Your task to perform on an android device: show emergency info Image 0: 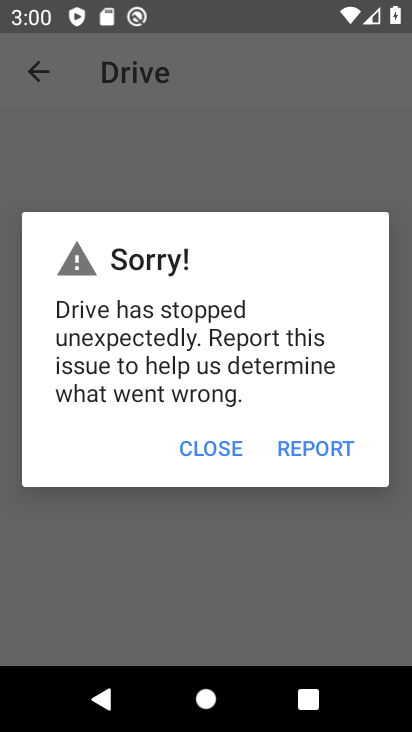
Step 0: press home button
Your task to perform on an android device: show emergency info Image 1: 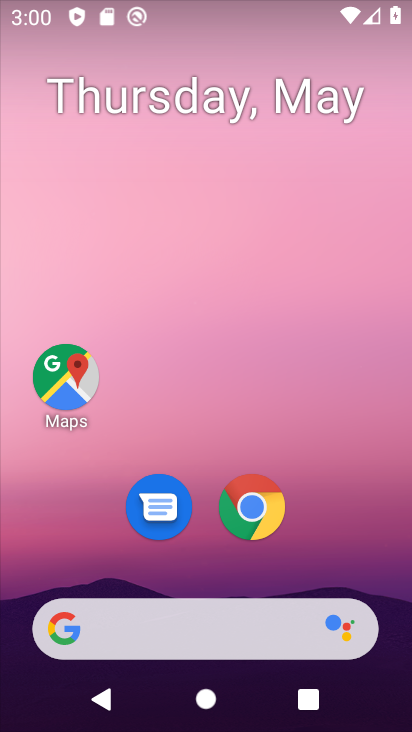
Step 1: drag from (312, 562) to (314, 85)
Your task to perform on an android device: show emergency info Image 2: 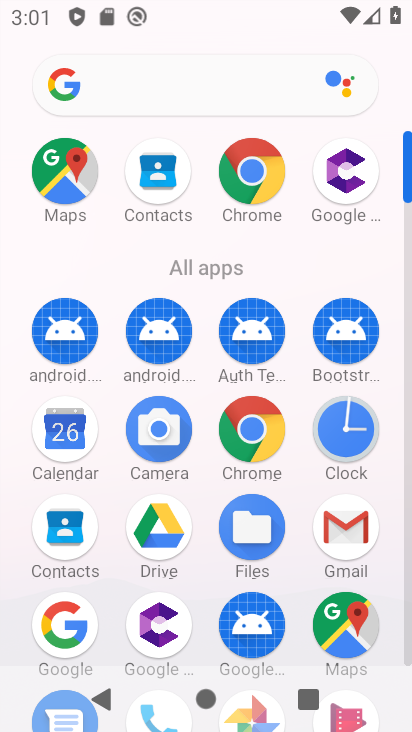
Step 2: drag from (298, 298) to (308, 79)
Your task to perform on an android device: show emergency info Image 3: 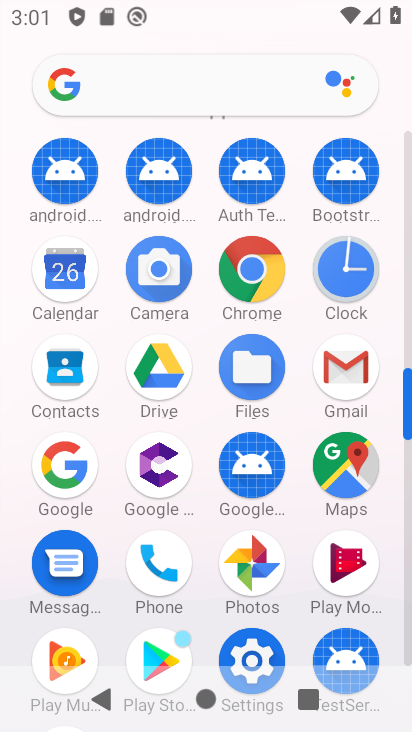
Step 3: click (243, 653)
Your task to perform on an android device: show emergency info Image 4: 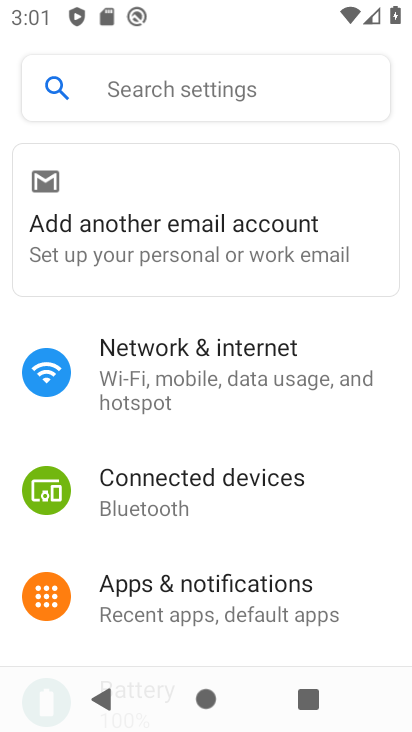
Step 4: drag from (300, 545) to (330, 246)
Your task to perform on an android device: show emergency info Image 5: 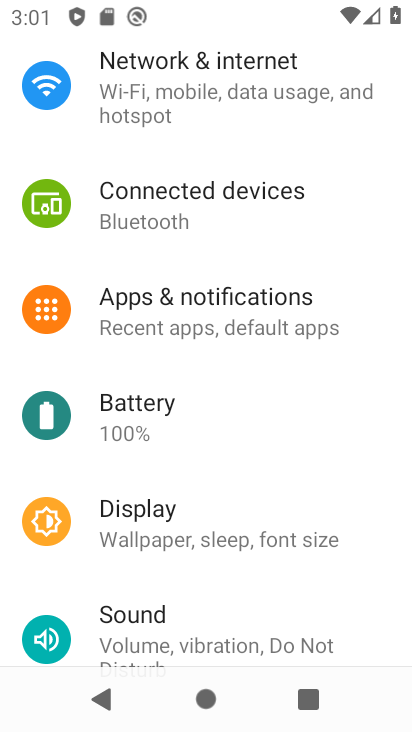
Step 5: drag from (312, 597) to (340, 115)
Your task to perform on an android device: show emergency info Image 6: 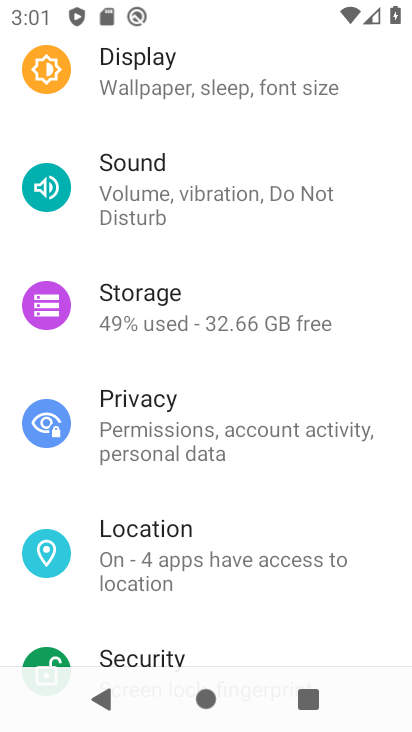
Step 6: drag from (326, 399) to (340, 153)
Your task to perform on an android device: show emergency info Image 7: 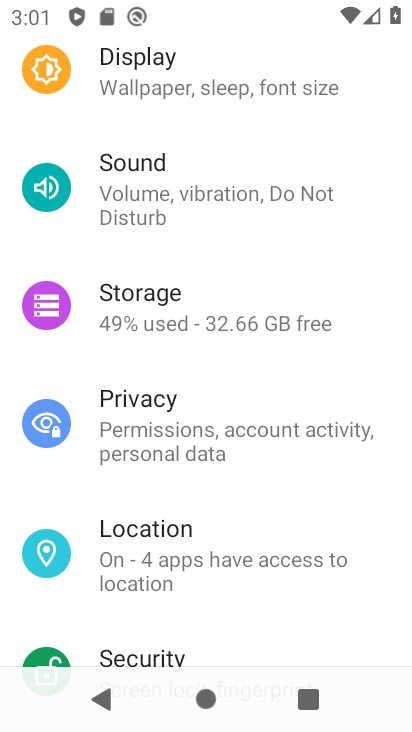
Step 7: drag from (339, 233) to (346, 158)
Your task to perform on an android device: show emergency info Image 8: 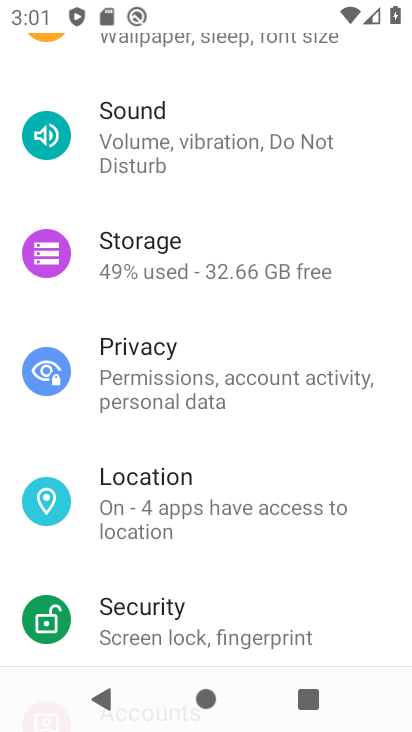
Step 8: drag from (348, 631) to (367, 200)
Your task to perform on an android device: show emergency info Image 9: 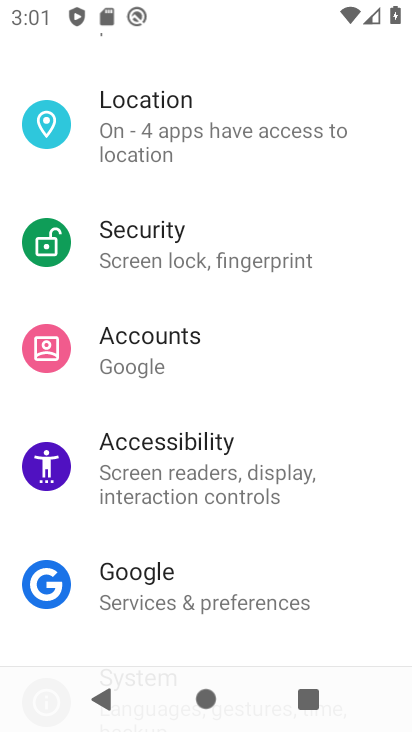
Step 9: drag from (351, 630) to (359, 156)
Your task to perform on an android device: show emergency info Image 10: 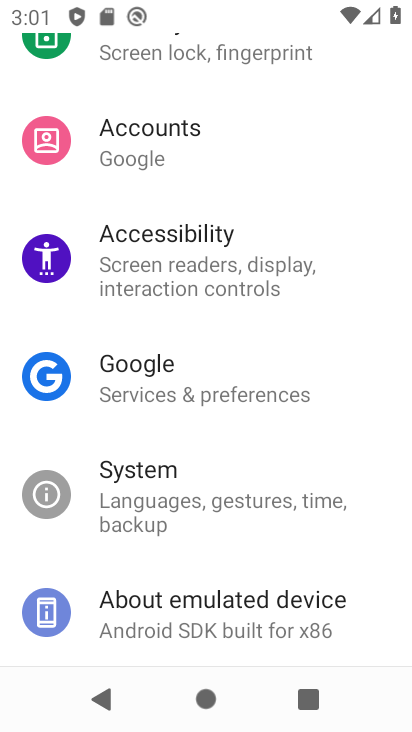
Step 10: drag from (374, 641) to (363, 211)
Your task to perform on an android device: show emergency info Image 11: 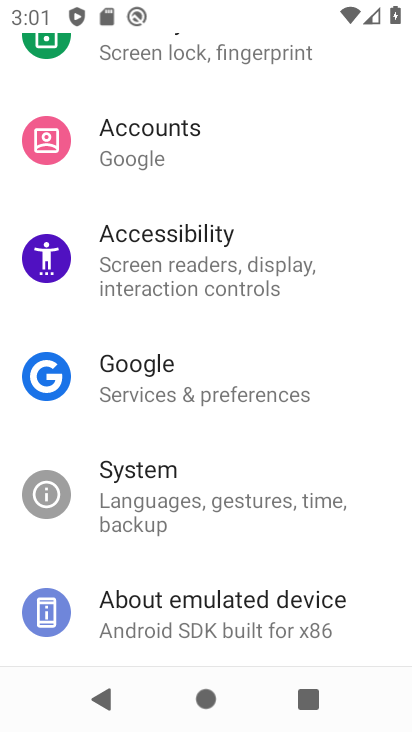
Step 11: click (220, 605)
Your task to perform on an android device: show emergency info Image 12: 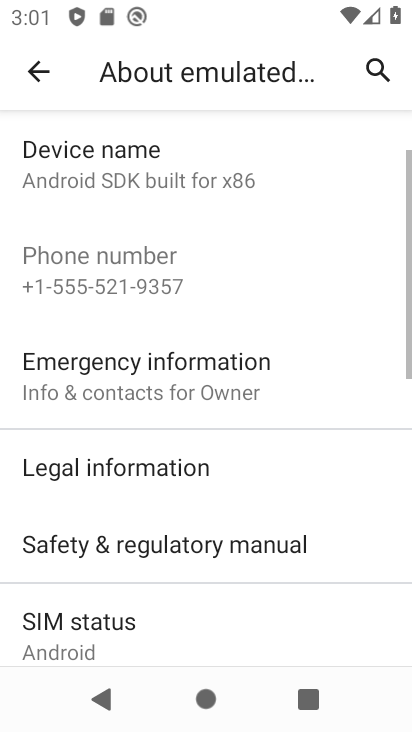
Step 12: click (139, 370)
Your task to perform on an android device: show emergency info Image 13: 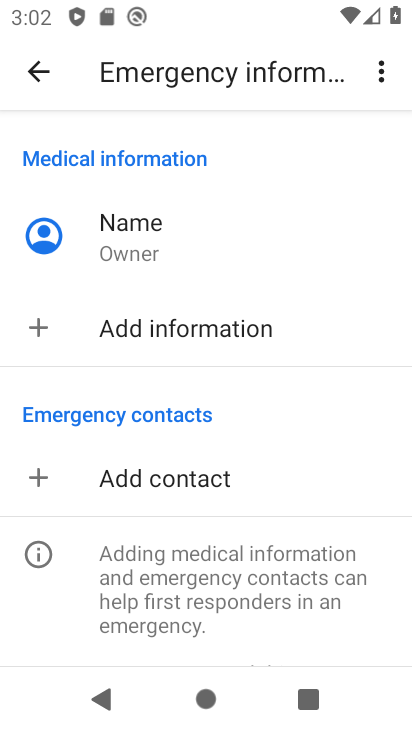
Step 13: task complete